Your task to perform on an android device: turn on notifications settings in the gmail app Image 0: 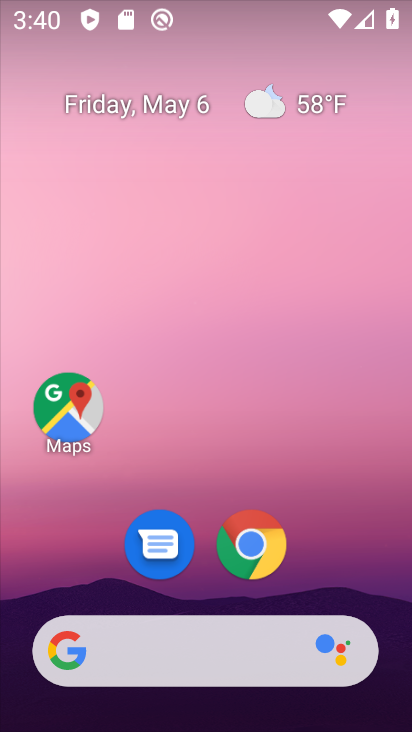
Step 0: drag from (134, 607) to (232, 52)
Your task to perform on an android device: turn on notifications settings in the gmail app Image 1: 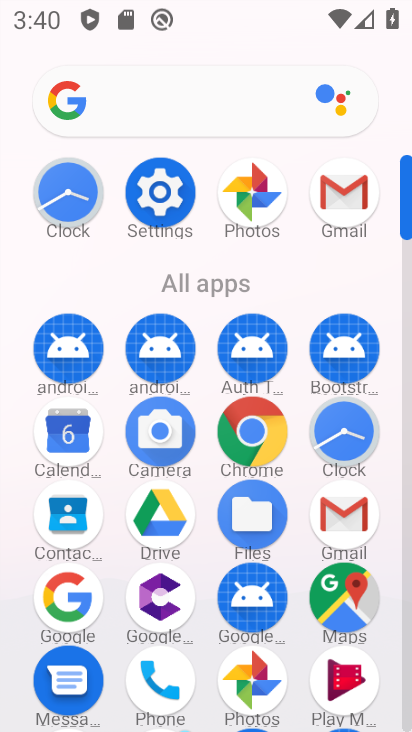
Step 1: drag from (141, 509) to (206, 251)
Your task to perform on an android device: turn on notifications settings in the gmail app Image 2: 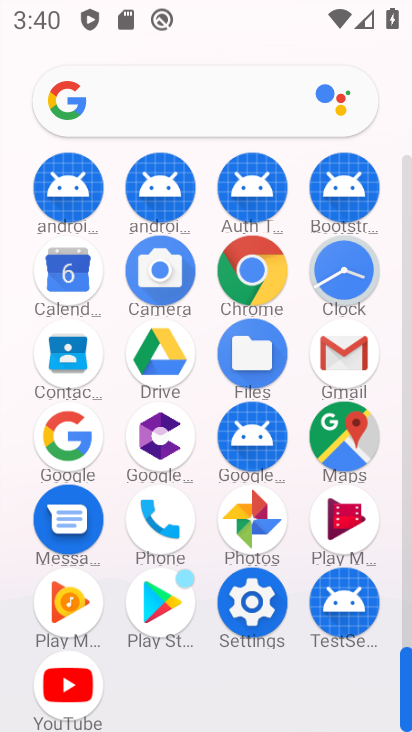
Step 2: click (351, 362)
Your task to perform on an android device: turn on notifications settings in the gmail app Image 3: 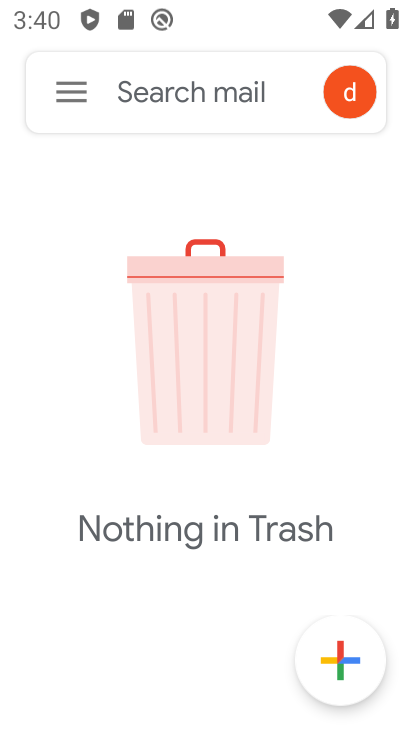
Step 3: click (65, 89)
Your task to perform on an android device: turn on notifications settings in the gmail app Image 4: 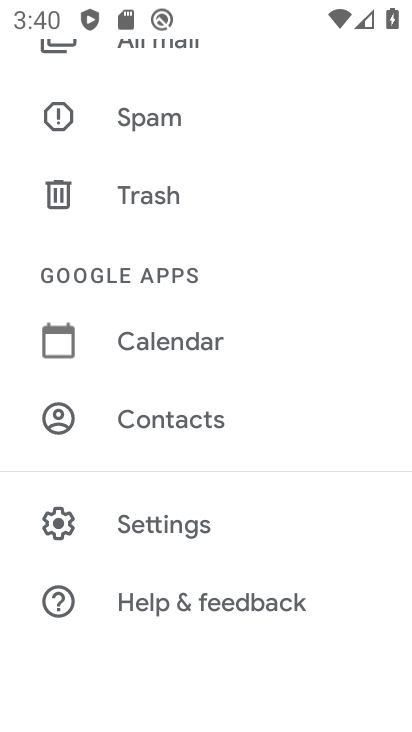
Step 4: click (155, 545)
Your task to perform on an android device: turn on notifications settings in the gmail app Image 5: 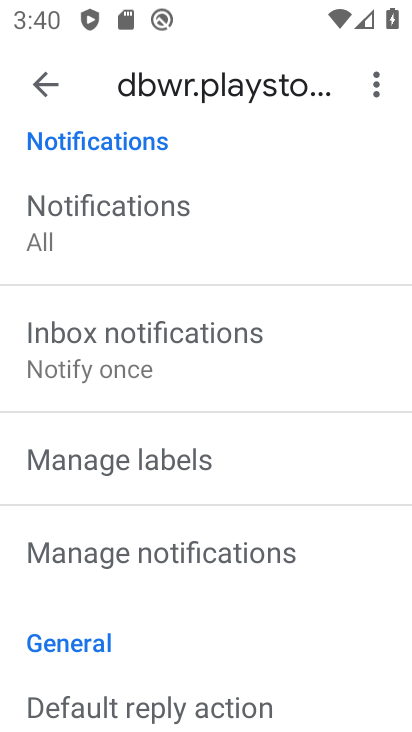
Step 5: click (175, 552)
Your task to perform on an android device: turn on notifications settings in the gmail app Image 6: 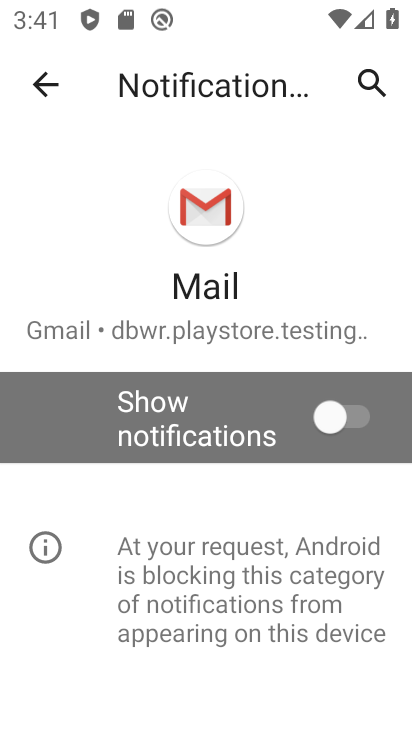
Step 6: click (363, 410)
Your task to perform on an android device: turn on notifications settings in the gmail app Image 7: 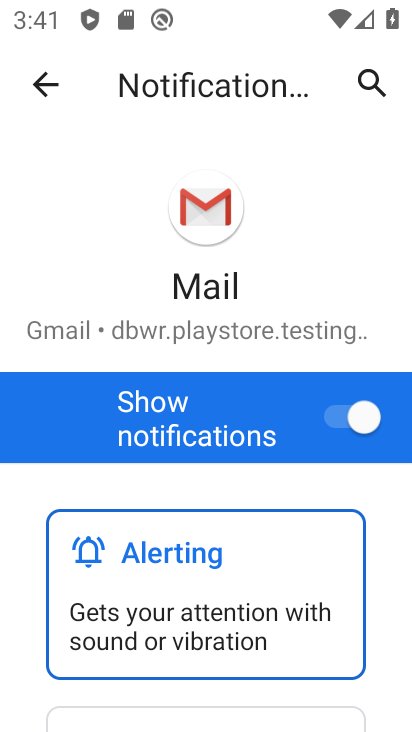
Step 7: task complete